Your task to perform on an android device: Open the stopwatch Image 0: 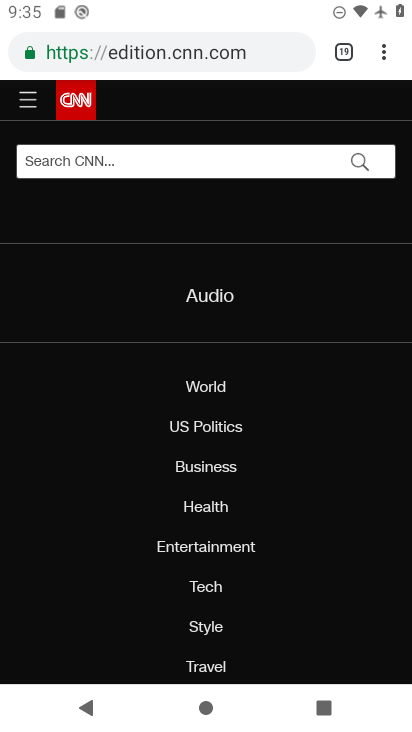
Step 0: press home button
Your task to perform on an android device: Open the stopwatch Image 1: 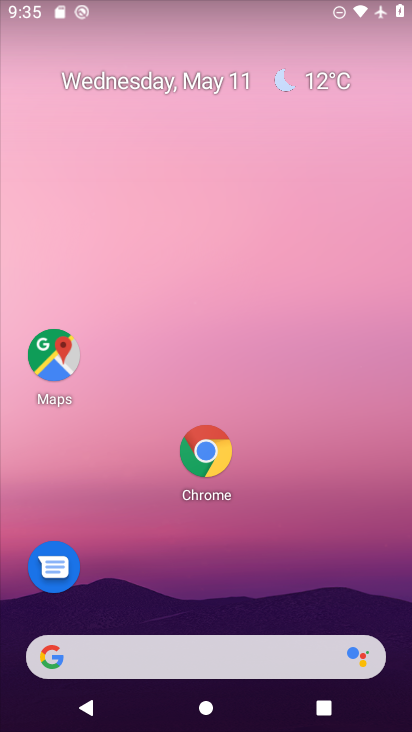
Step 1: drag from (212, 661) to (269, 117)
Your task to perform on an android device: Open the stopwatch Image 2: 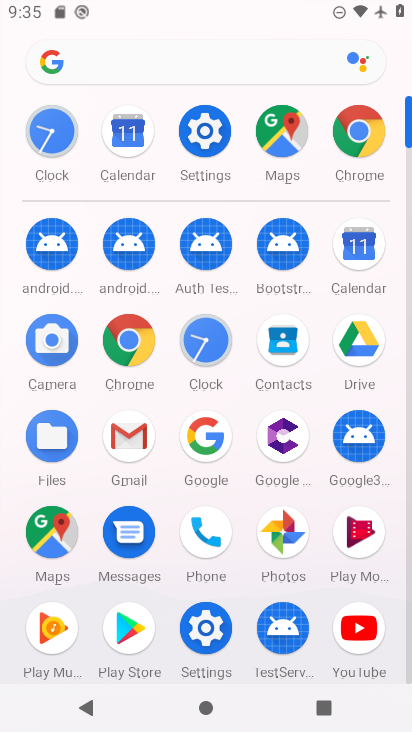
Step 2: click (213, 352)
Your task to perform on an android device: Open the stopwatch Image 3: 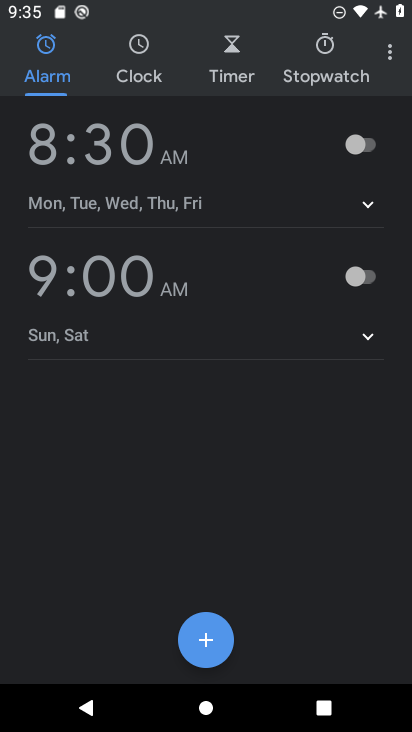
Step 3: click (325, 76)
Your task to perform on an android device: Open the stopwatch Image 4: 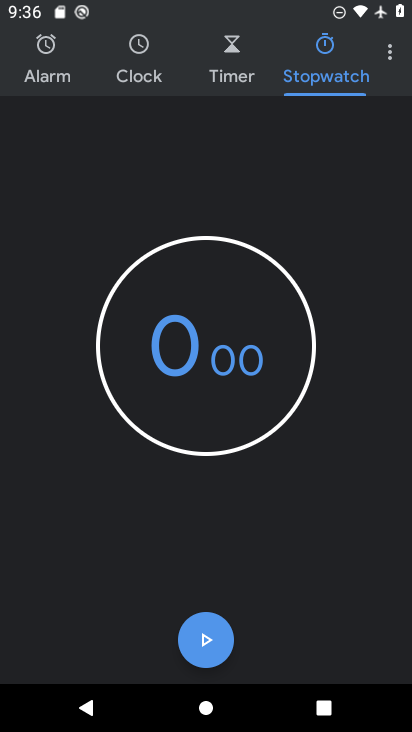
Step 4: task complete